Your task to perform on an android device: Show me popular videos on Youtube Image 0: 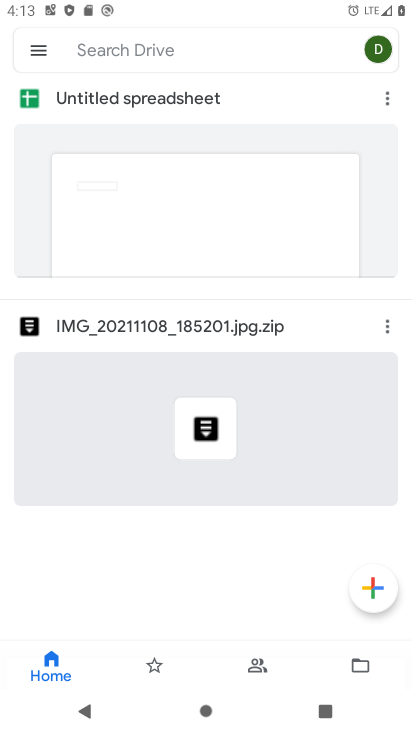
Step 0: press home button
Your task to perform on an android device: Show me popular videos on Youtube Image 1: 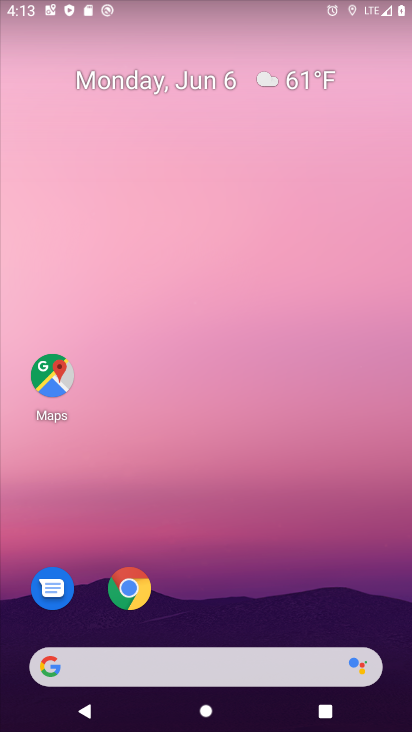
Step 1: drag from (366, 619) to (241, 95)
Your task to perform on an android device: Show me popular videos on Youtube Image 2: 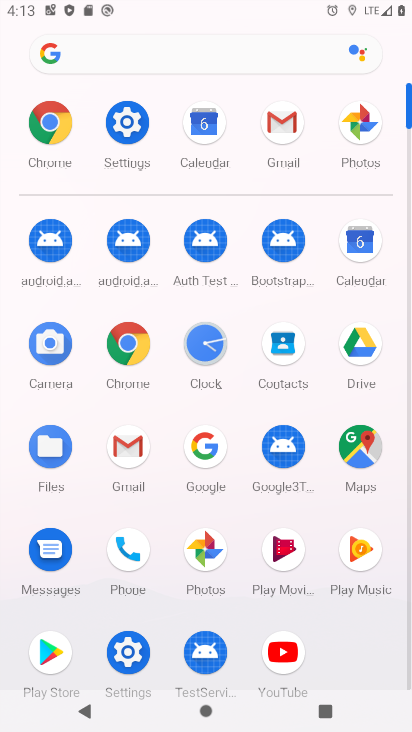
Step 2: click (291, 653)
Your task to perform on an android device: Show me popular videos on Youtube Image 3: 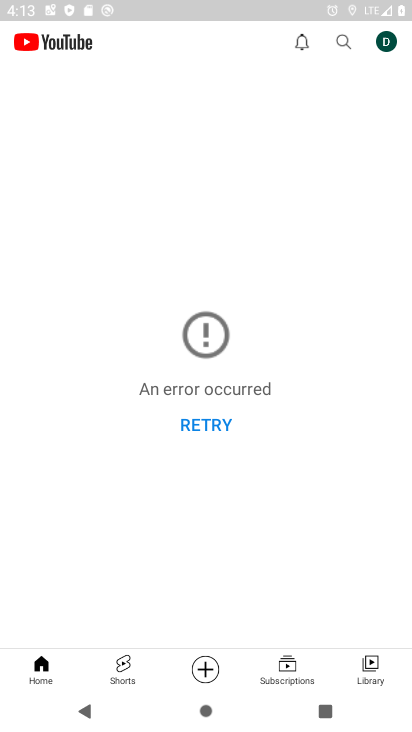
Step 3: task complete